Your task to perform on an android device: toggle improve location accuracy Image 0: 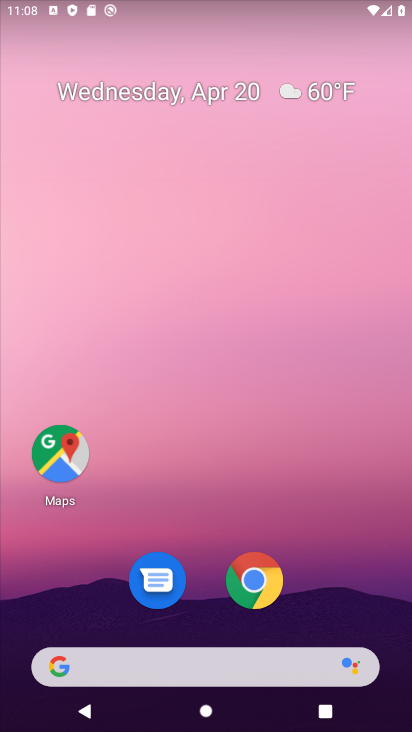
Step 0: drag from (174, 678) to (124, 178)
Your task to perform on an android device: toggle improve location accuracy Image 1: 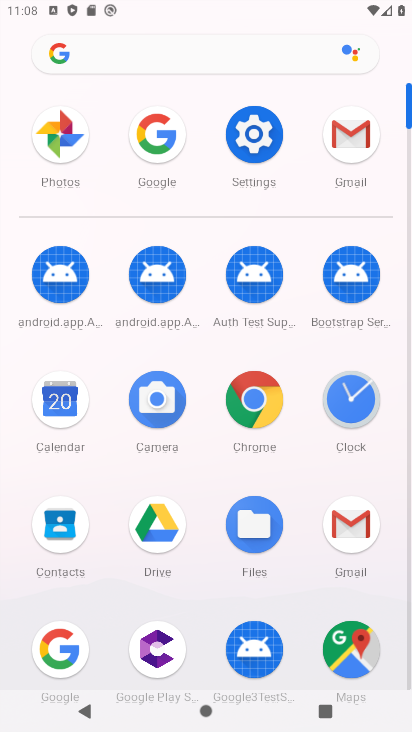
Step 1: click (252, 140)
Your task to perform on an android device: toggle improve location accuracy Image 2: 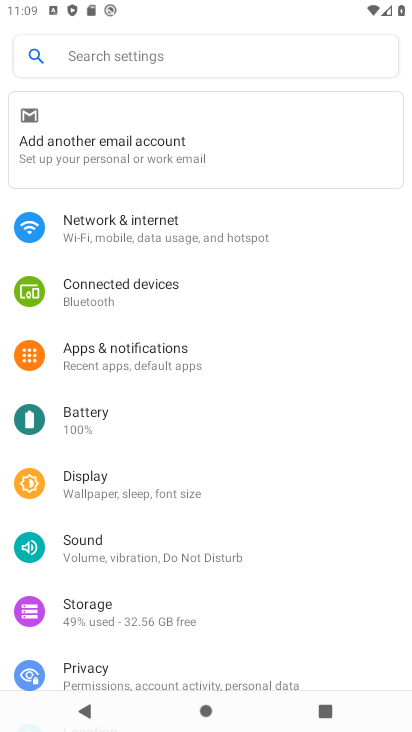
Step 2: drag from (108, 653) to (77, 189)
Your task to perform on an android device: toggle improve location accuracy Image 3: 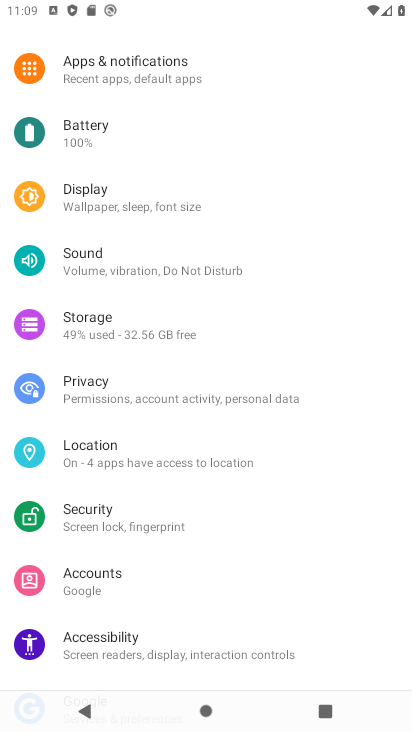
Step 3: click (131, 461)
Your task to perform on an android device: toggle improve location accuracy Image 4: 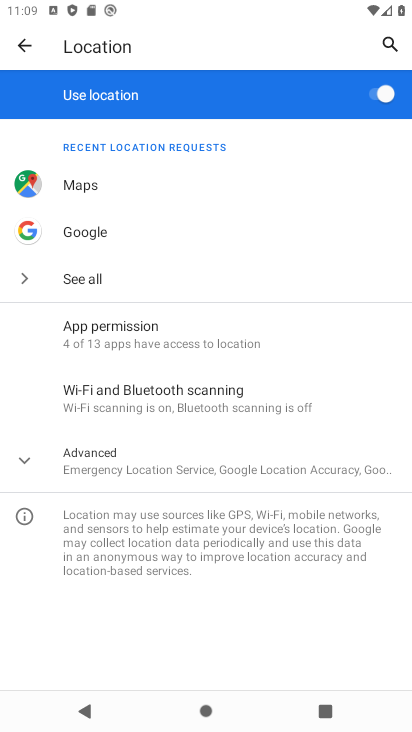
Step 4: click (133, 461)
Your task to perform on an android device: toggle improve location accuracy Image 5: 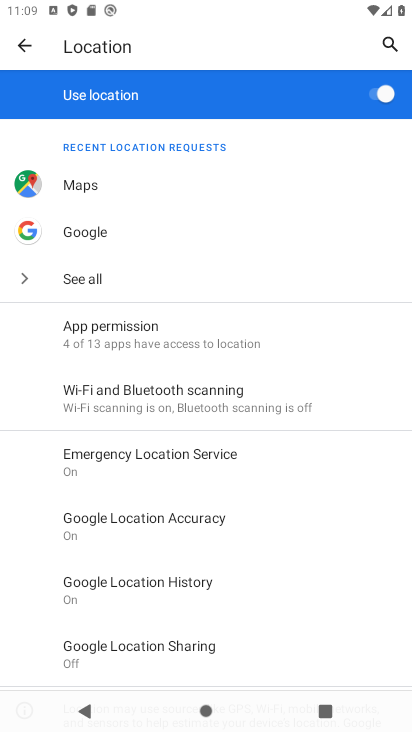
Step 5: click (153, 531)
Your task to perform on an android device: toggle improve location accuracy Image 6: 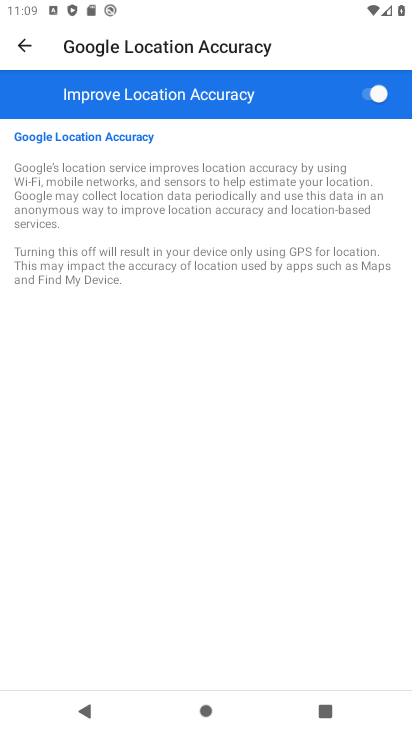
Step 6: click (377, 96)
Your task to perform on an android device: toggle improve location accuracy Image 7: 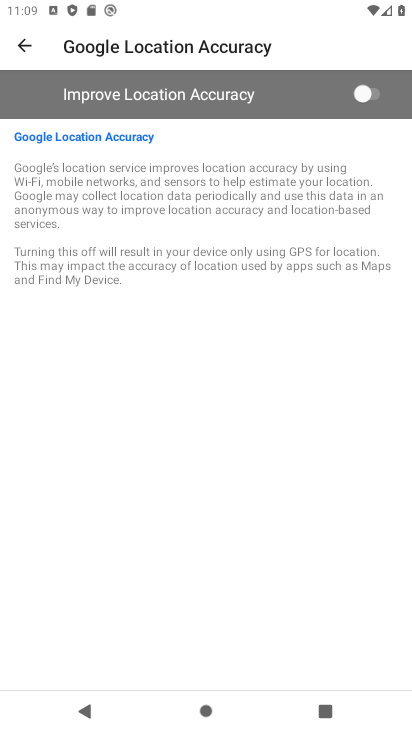
Step 7: task complete